Your task to perform on an android device: What's the weather today? Image 0: 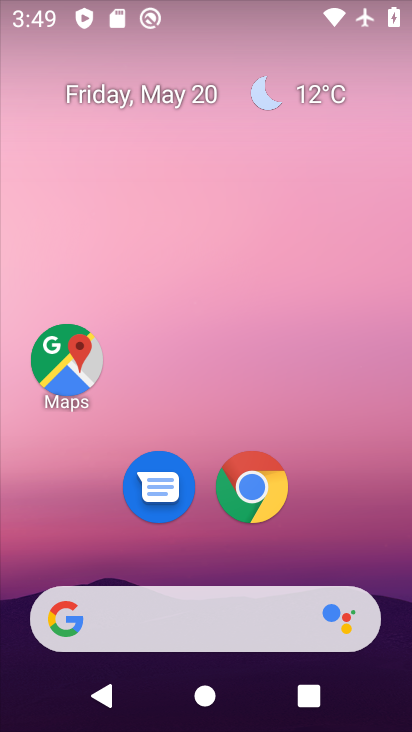
Step 0: click (181, 624)
Your task to perform on an android device: What's the weather today? Image 1: 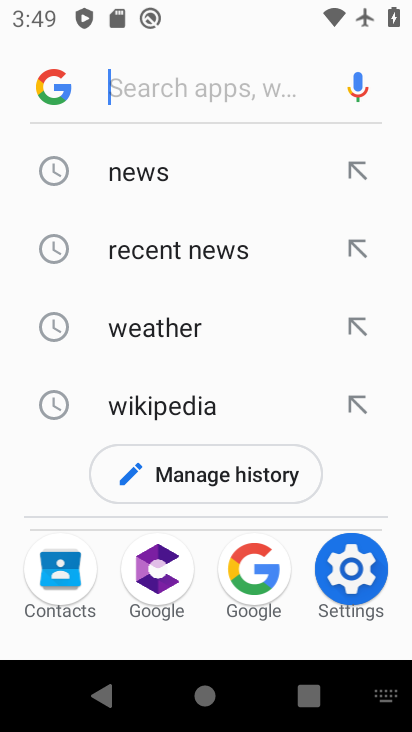
Step 1: click (157, 336)
Your task to perform on an android device: What's the weather today? Image 2: 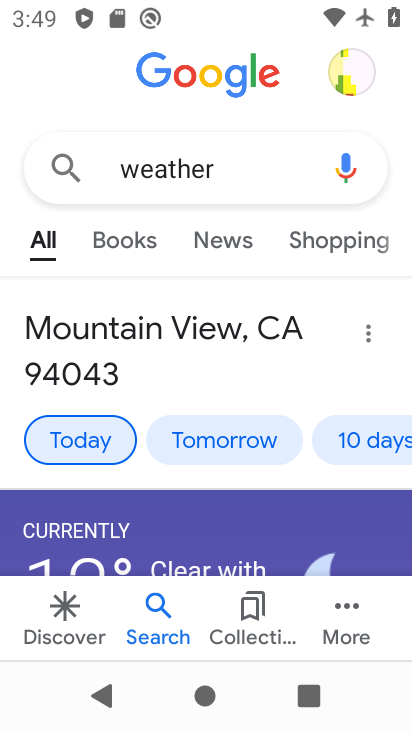
Step 2: task complete